Your task to perform on an android device: turn on showing notifications on the lock screen Image 0: 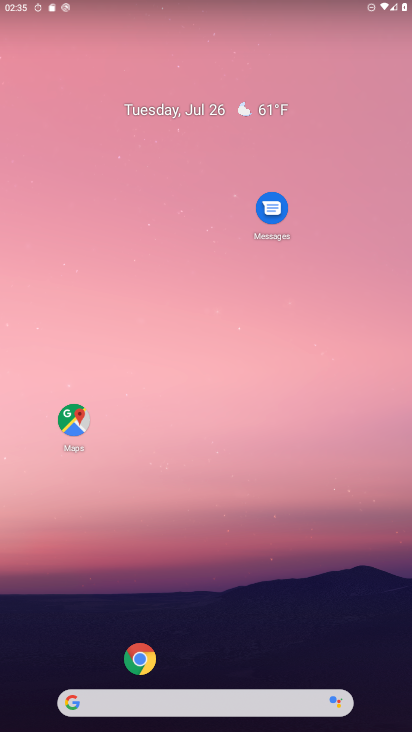
Step 0: drag from (46, 610) to (181, 194)
Your task to perform on an android device: turn on showing notifications on the lock screen Image 1: 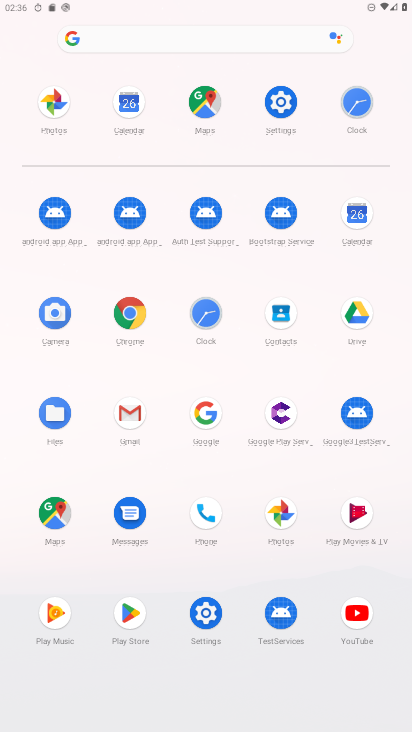
Step 1: click (192, 621)
Your task to perform on an android device: turn on showing notifications on the lock screen Image 2: 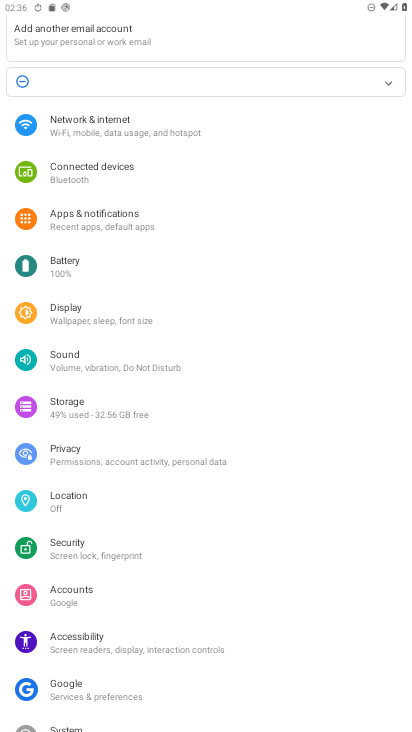
Step 2: click (86, 215)
Your task to perform on an android device: turn on showing notifications on the lock screen Image 3: 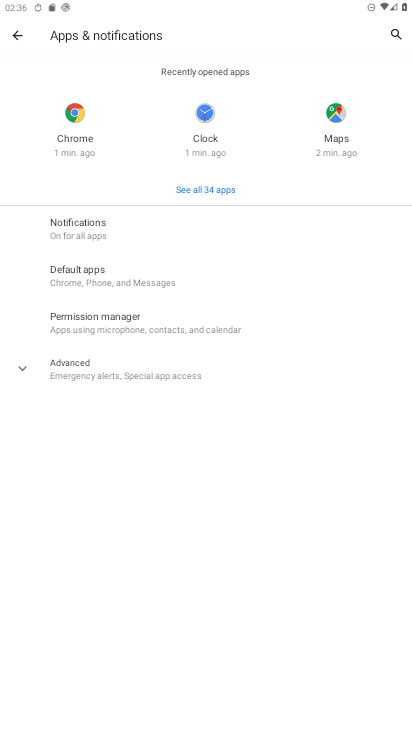
Step 3: click (89, 236)
Your task to perform on an android device: turn on showing notifications on the lock screen Image 4: 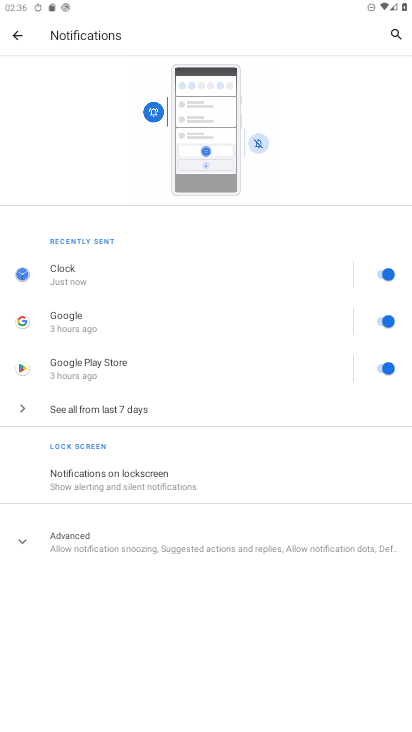
Step 4: click (173, 477)
Your task to perform on an android device: turn on showing notifications on the lock screen Image 5: 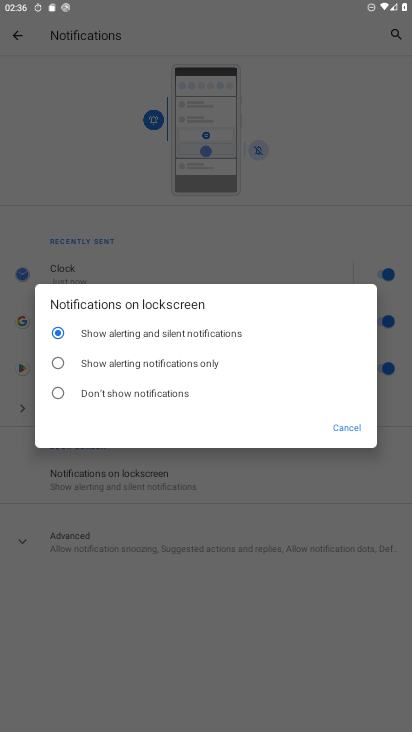
Step 5: task complete